Your task to perform on an android device: see creations saved in the google photos Image 0: 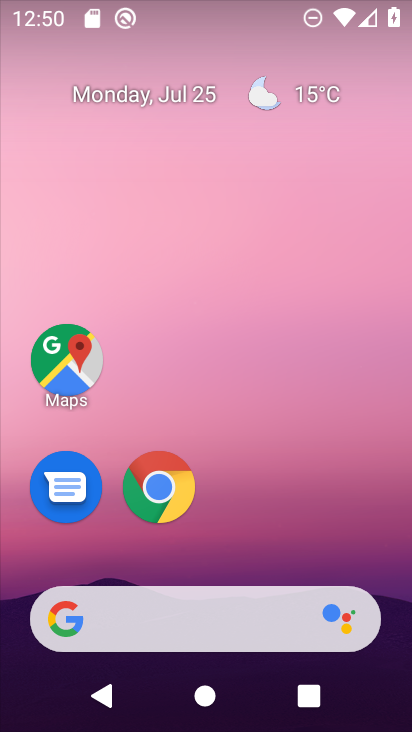
Step 0: drag from (286, 469) to (312, 0)
Your task to perform on an android device: see creations saved in the google photos Image 1: 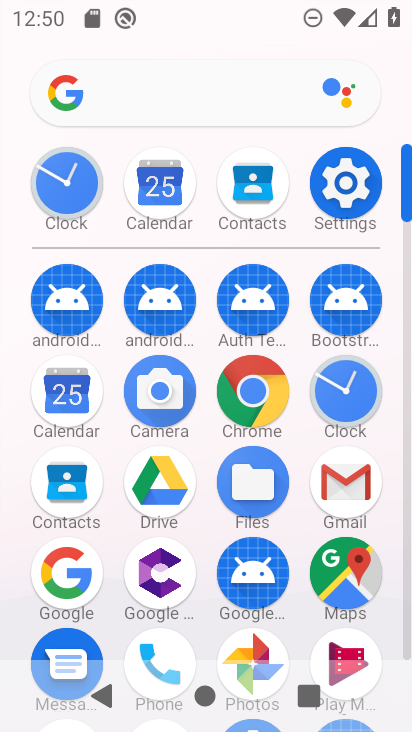
Step 1: click (242, 645)
Your task to perform on an android device: see creations saved in the google photos Image 2: 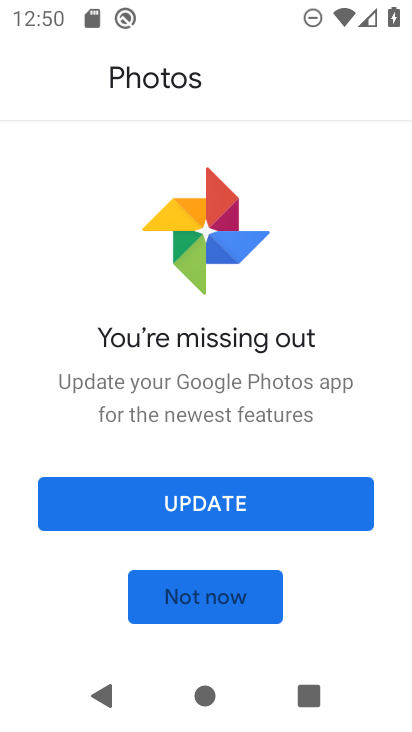
Step 2: click (206, 618)
Your task to perform on an android device: see creations saved in the google photos Image 3: 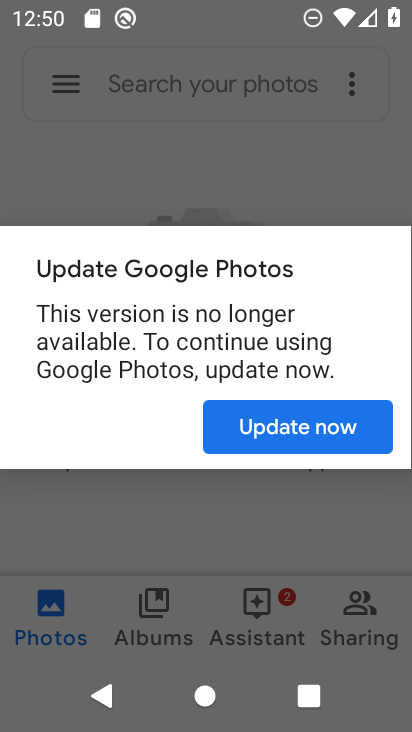
Step 3: click (268, 430)
Your task to perform on an android device: see creations saved in the google photos Image 4: 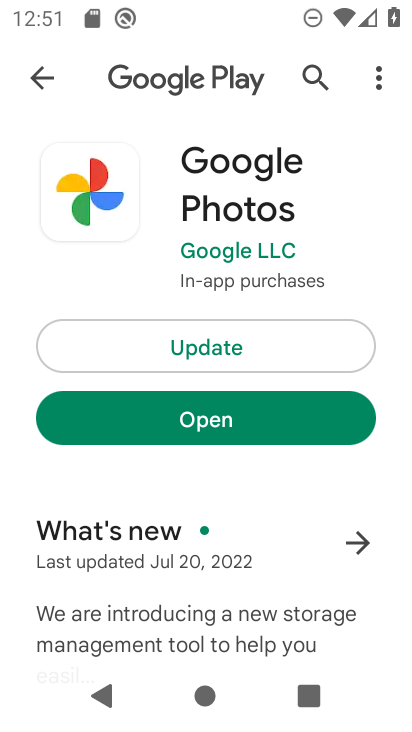
Step 4: click (216, 417)
Your task to perform on an android device: see creations saved in the google photos Image 5: 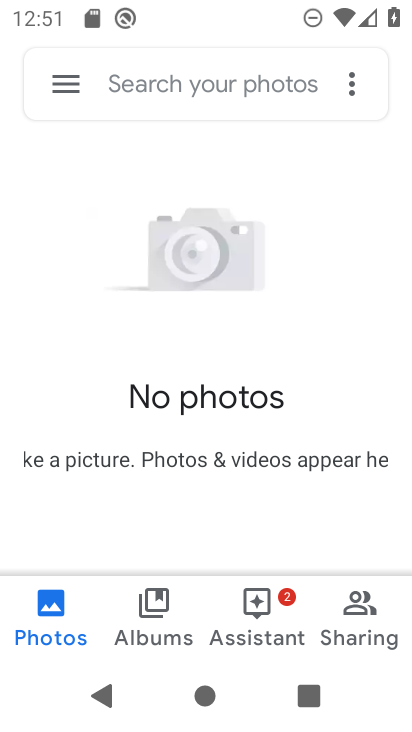
Step 5: click (64, 78)
Your task to perform on an android device: see creations saved in the google photos Image 6: 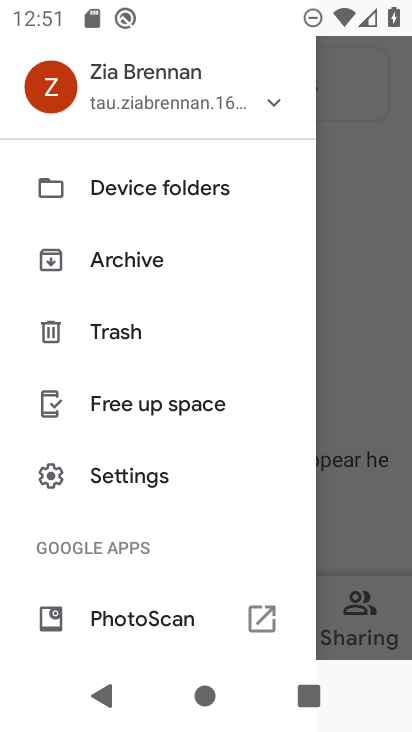
Step 6: click (125, 259)
Your task to perform on an android device: see creations saved in the google photos Image 7: 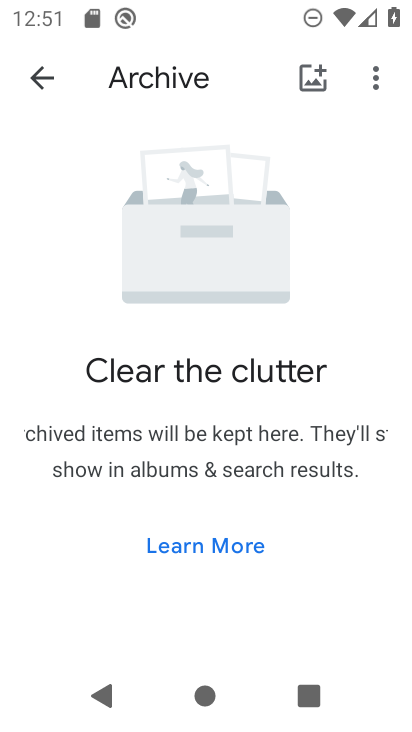
Step 7: task complete